Your task to perform on an android device: turn off smart reply in the gmail app Image 0: 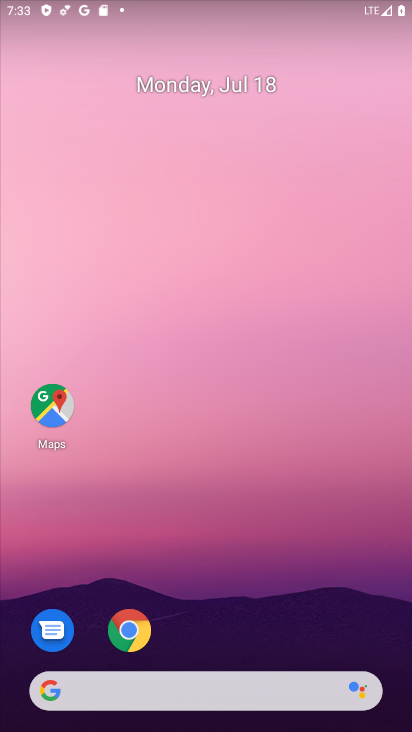
Step 0: drag from (339, 347) to (350, 261)
Your task to perform on an android device: turn off smart reply in the gmail app Image 1: 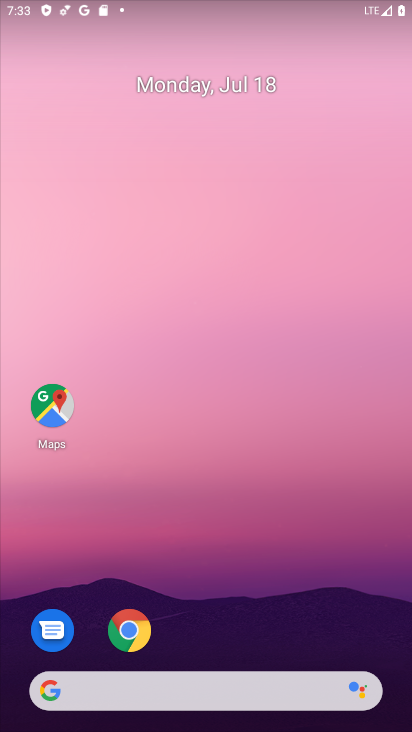
Step 1: drag from (207, 711) to (269, 318)
Your task to perform on an android device: turn off smart reply in the gmail app Image 2: 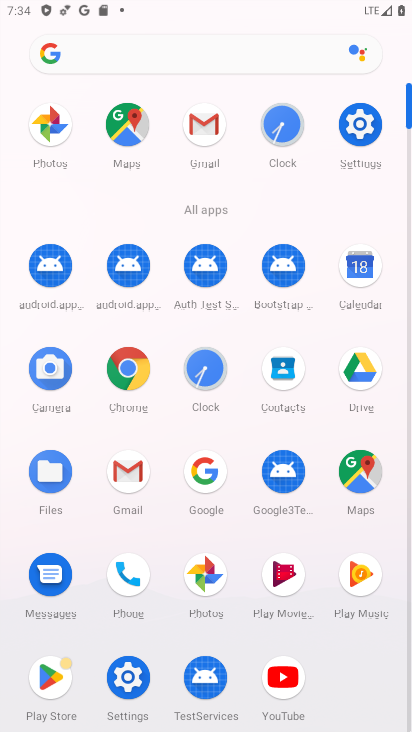
Step 2: click (207, 147)
Your task to perform on an android device: turn off smart reply in the gmail app Image 3: 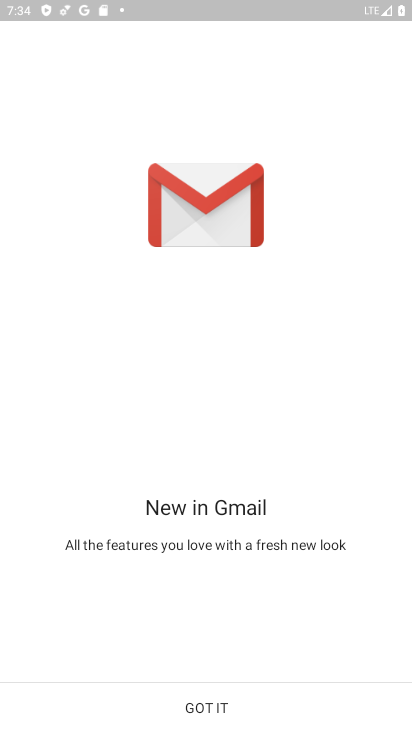
Step 3: click (226, 707)
Your task to perform on an android device: turn off smart reply in the gmail app Image 4: 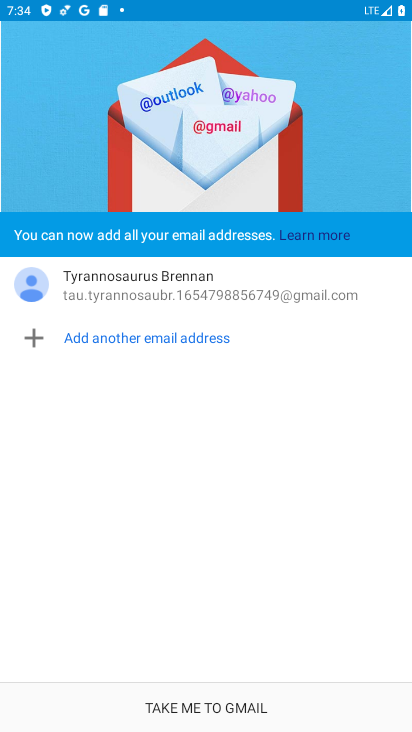
Step 4: click (253, 705)
Your task to perform on an android device: turn off smart reply in the gmail app Image 5: 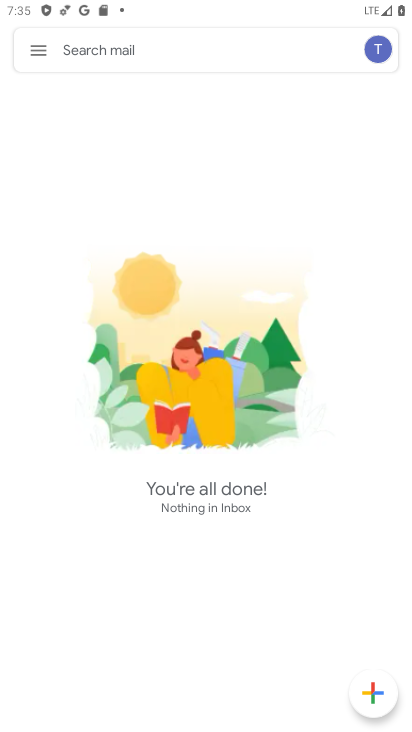
Step 5: click (36, 53)
Your task to perform on an android device: turn off smart reply in the gmail app Image 6: 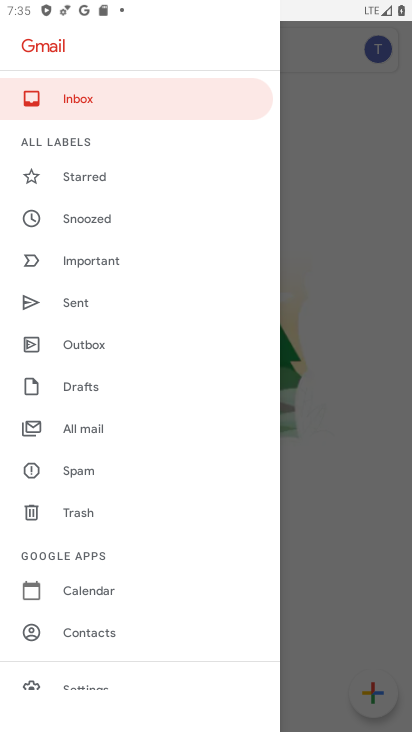
Step 6: drag from (106, 615) to (133, 321)
Your task to perform on an android device: turn off smart reply in the gmail app Image 7: 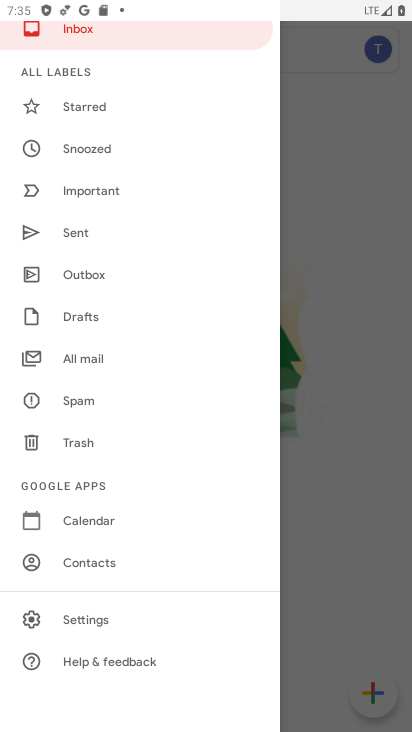
Step 7: click (104, 620)
Your task to perform on an android device: turn off smart reply in the gmail app Image 8: 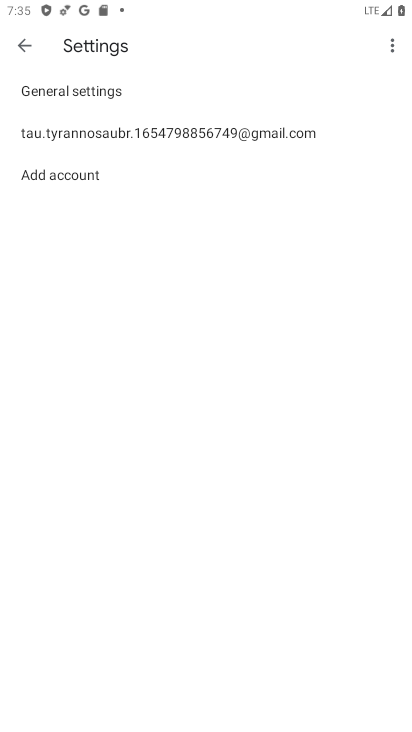
Step 8: click (143, 130)
Your task to perform on an android device: turn off smart reply in the gmail app Image 9: 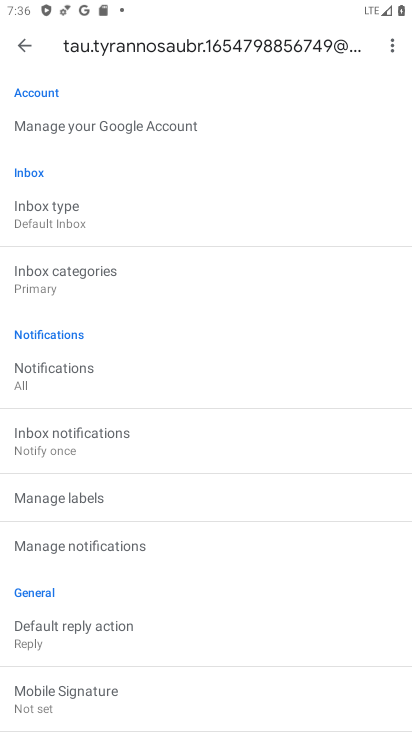
Step 9: drag from (85, 588) to (112, 452)
Your task to perform on an android device: turn off smart reply in the gmail app Image 10: 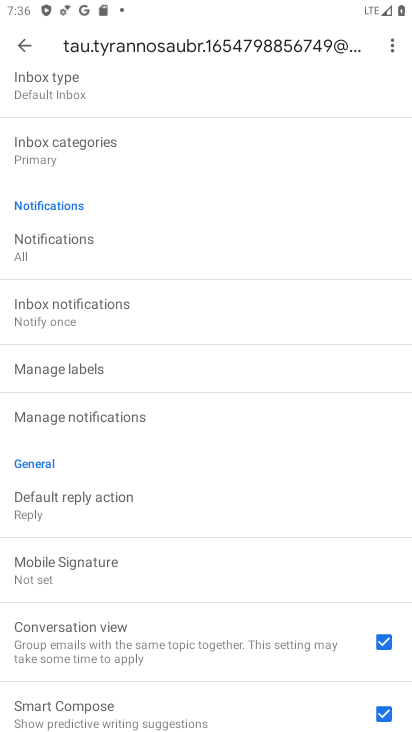
Step 10: drag from (139, 369) to (117, 625)
Your task to perform on an android device: turn off smart reply in the gmail app Image 11: 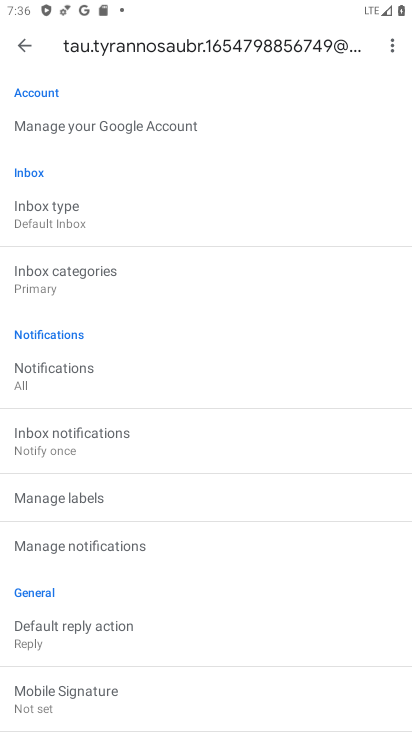
Step 11: drag from (155, 566) to (208, 212)
Your task to perform on an android device: turn off smart reply in the gmail app Image 12: 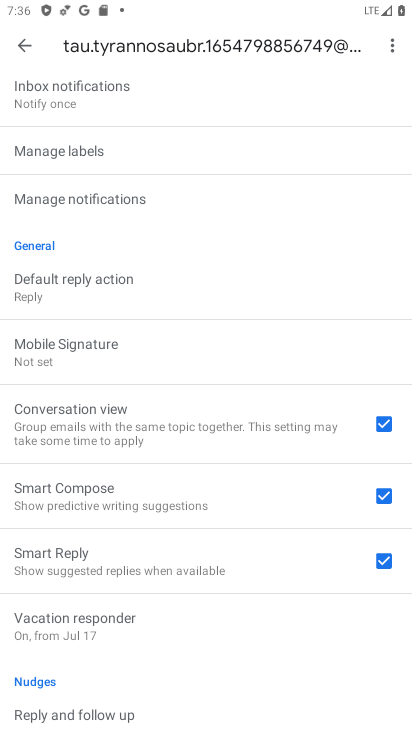
Step 12: click (385, 564)
Your task to perform on an android device: turn off smart reply in the gmail app Image 13: 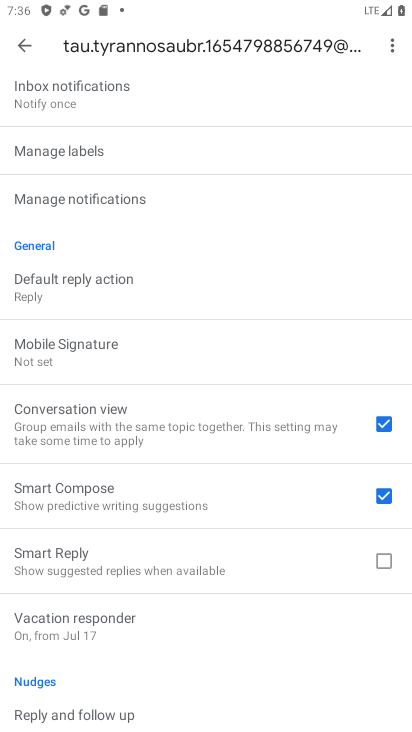
Step 13: task complete